Your task to perform on an android device: change the upload size in google photos Image 0: 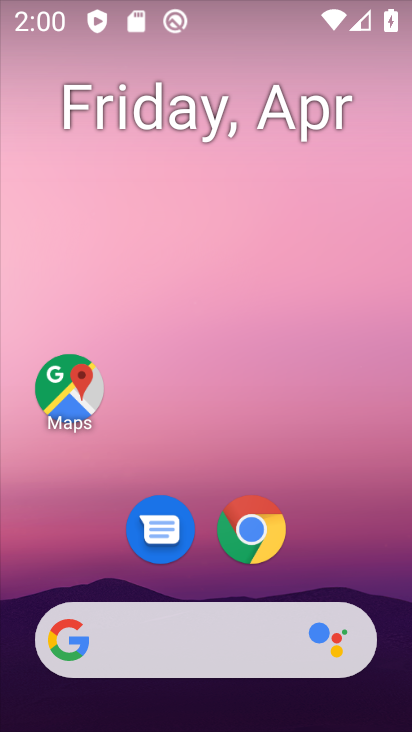
Step 0: drag from (199, 538) to (242, 187)
Your task to perform on an android device: change the upload size in google photos Image 1: 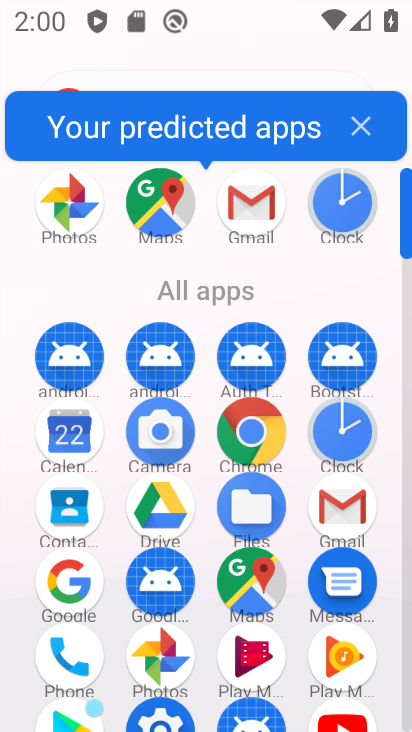
Step 1: click (75, 206)
Your task to perform on an android device: change the upload size in google photos Image 2: 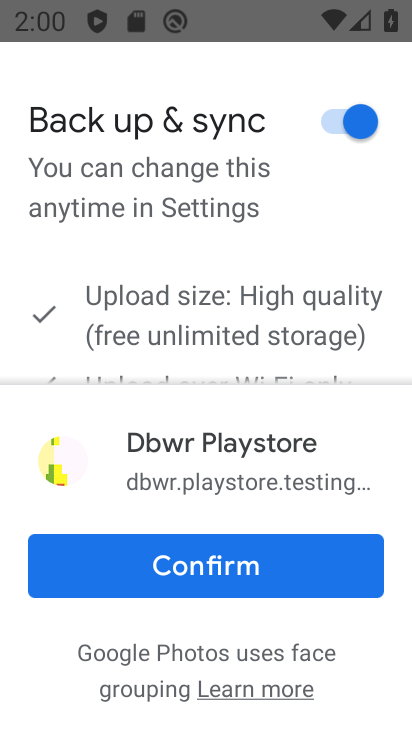
Step 2: click (242, 570)
Your task to perform on an android device: change the upload size in google photos Image 3: 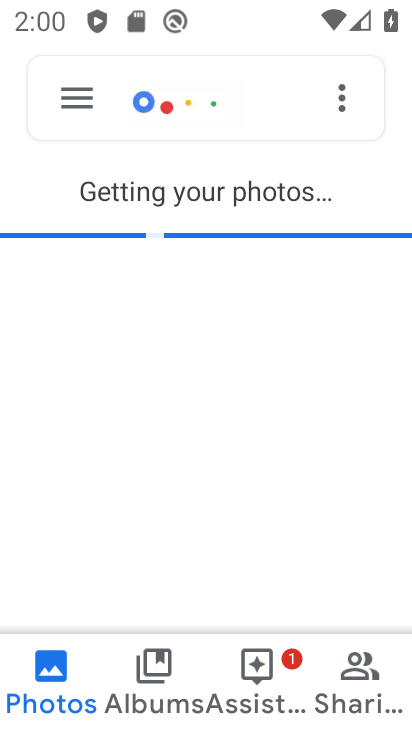
Step 3: click (83, 93)
Your task to perform on an android device: change the upload size in google photos Image 4: 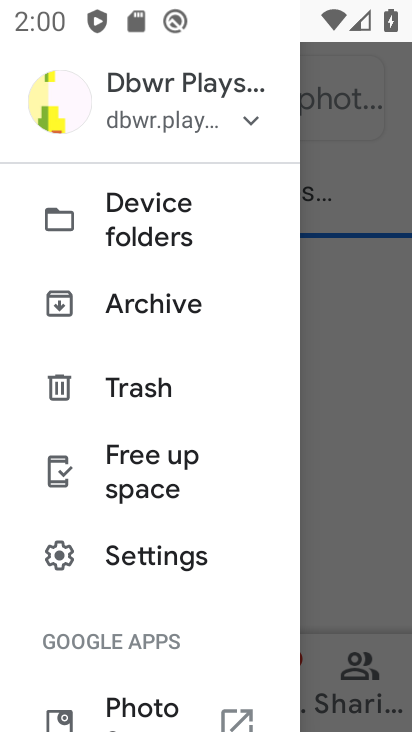
Step 4: click (124, 552)
Your task to perform on an android device: change the upload size in google photos Image 5: 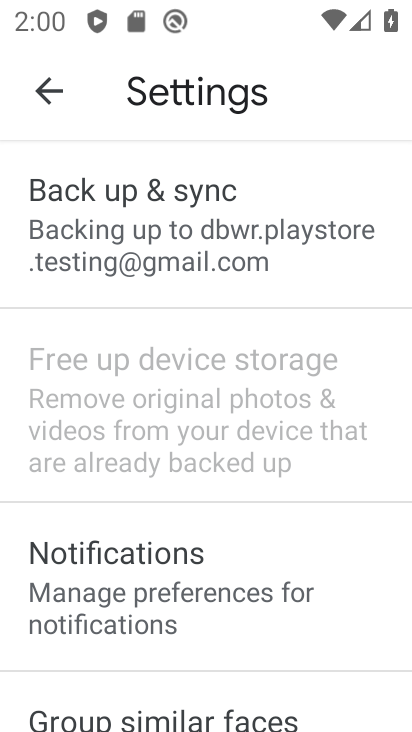
Step 5: click (178, 223)
Your task to perform on an android device: change the upload size in google photos Image 6: 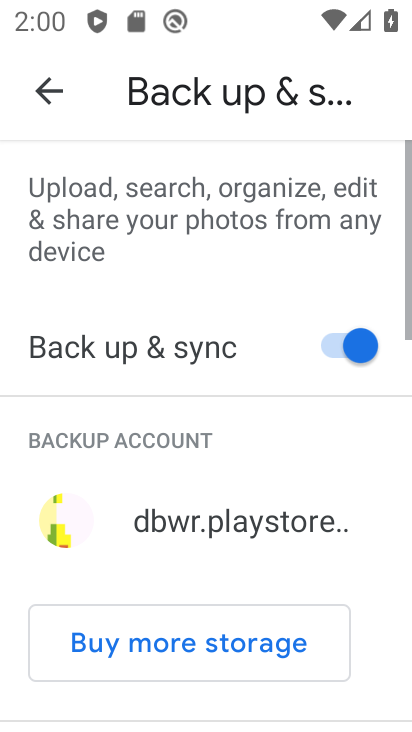
Step 6: drag from (258, 450) to (291, 215)
Your task to perform on an android device: change the upload size in google photos Image 7: 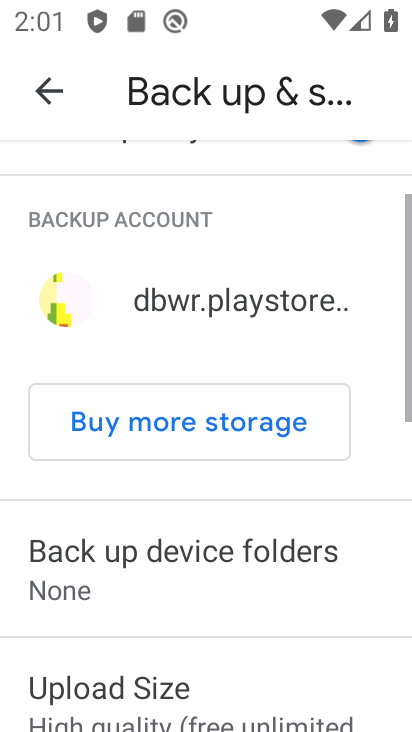
Step 7: drag from (248, 563) to (320, 301)
Your task to perform on an android device: change the upload size in google photos Image 8: 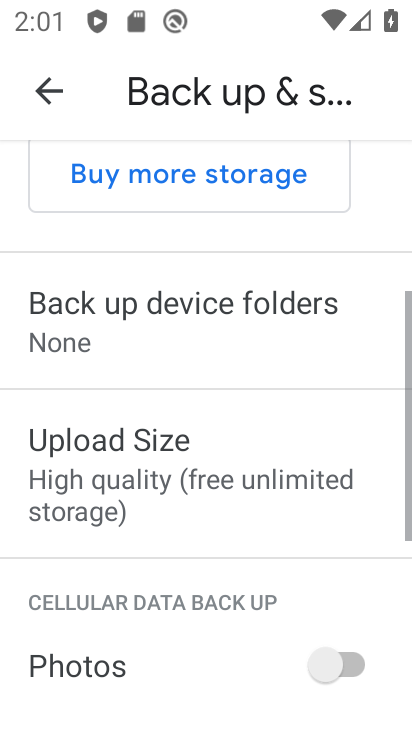
Step 8: click (240, 428)
Your task to perform on an android device: change the upload size in google photos Image 9: 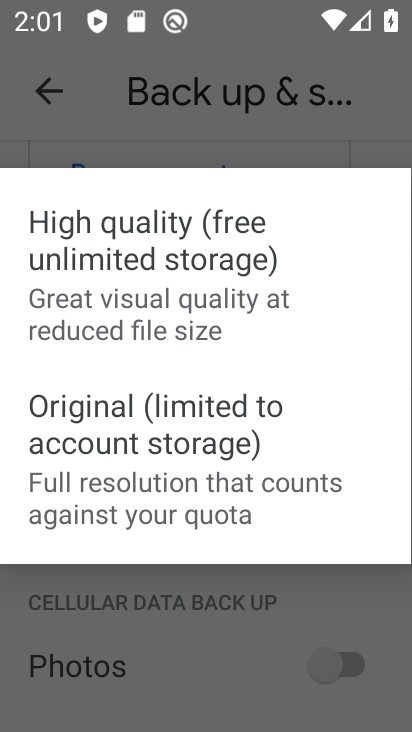
Step 9: click (211, 429)
Your task to perform on an android device: change the upload size in google photos Image 10: 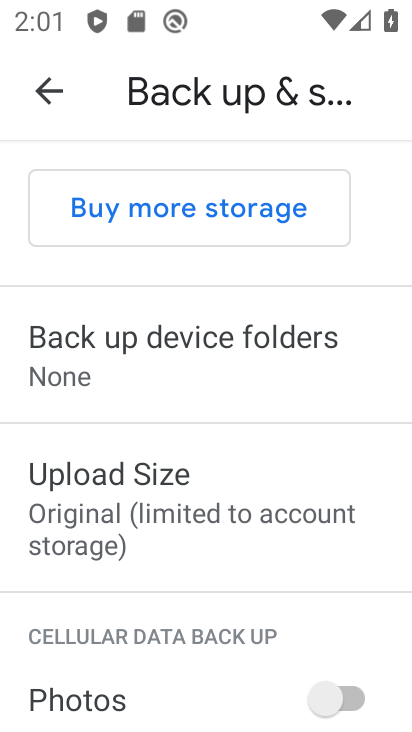
Step 10: task complete